Your task to perform on an android device: open app "TextNow: Call + Text Unlimited" (install if not already installed) and enter user name: "stoke@yahoo.com" and password: "prompted" Image 0: 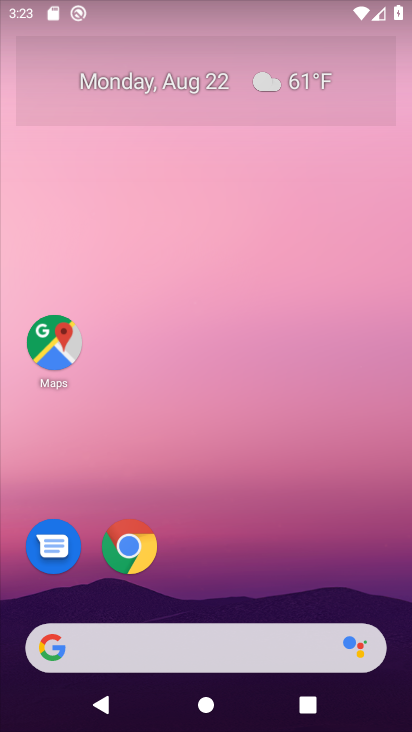
Step 0: drag from (399, 620) to (362, 180)
Your task to perform on an android device: open app "TextNow: Call + Text Unlimited" (install if not already installed) and enter user name: "stoke@yahoo.com" and password: "prompted" Image 1: 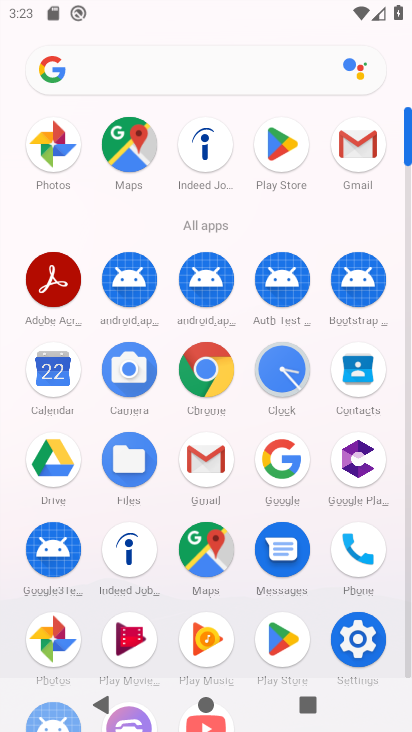
Step 1: click (285, 638)
Your task to perform on an android device: open app "TextNow: Call + Text Unlimited" (install if not already installed) and enter user name: "stoke@yahoo.com" and password: "prompted" Image 2: 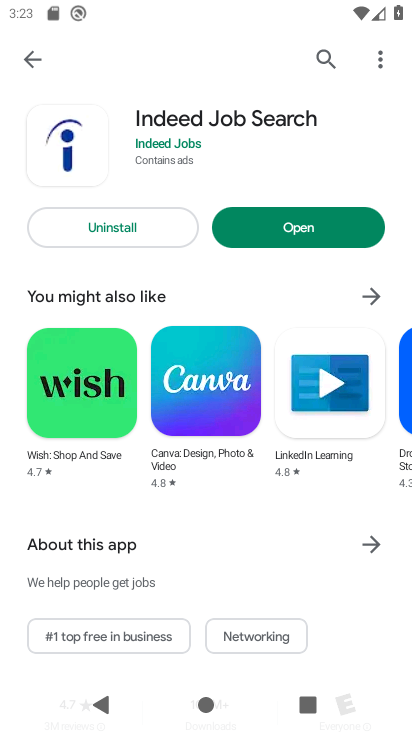
Step 2: click (321, 54)
Your task to perform on an android device: open app "TextNow: Call + Text Unlimited" (install if not already installed) and enter user name: "stoke@yahoo.com" and password: "prompted" Image 3: 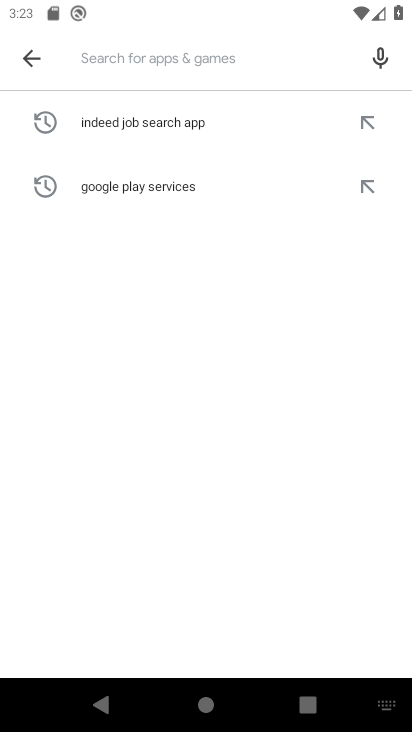
Step 3: type "TextNow: Call + Text Unlimited"
Your task to perform on an android device: open app "TextNow: Call + Text Unlimited" (install if not already installed) and enter user name: "stoke@yahoo.com" and password: "prompted" Image 4: 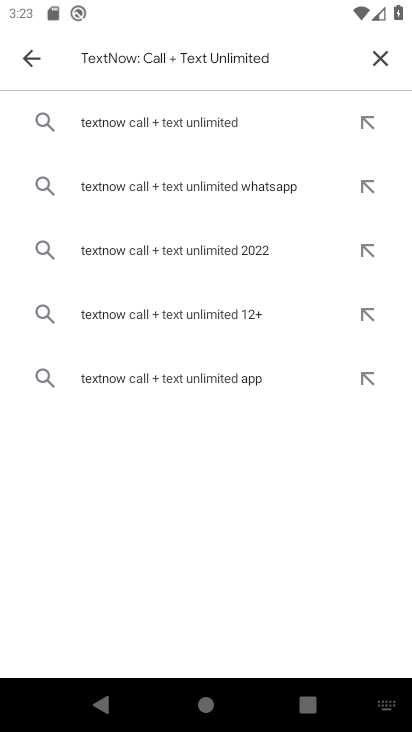
Step 4: click (119, 121)
Your task to perform on an android device: open app "TextNow: Call + Text Unlimited" (install if not already installed) and enter user name: "stoke@yahoo.com" and password: "prompted" Image 5: 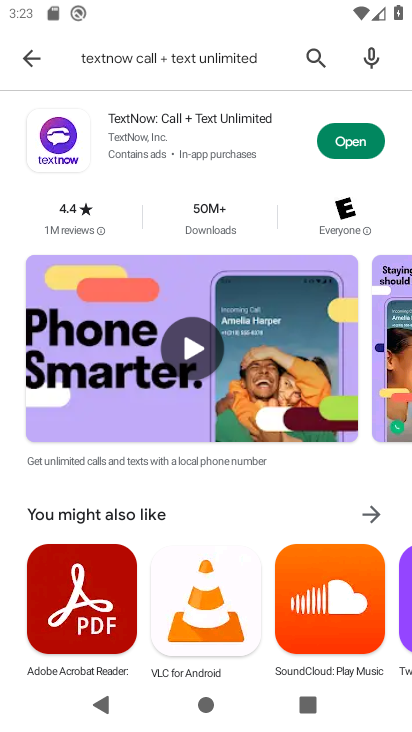
Step 5: click (119, 117)
Your task to perform on an android device: open app "TextNow: Call + Text Unlimited" (install if not already installed) and enter user name: "stoke@yahoo.com" and password: "prompted" Image 6: 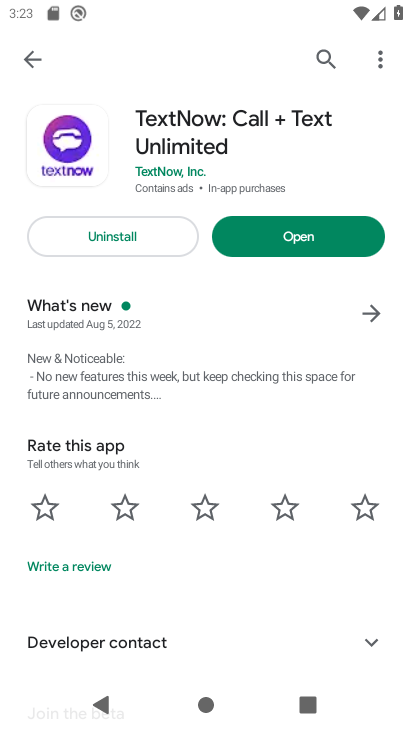
Step 6: click (293, 241)
Your task to perform on an android device: open app "TextNow: Call + Text Unlimited" (install if not already installed) and enter user name: "stoke@yahoo.com" and password: "prompted" Image 7: 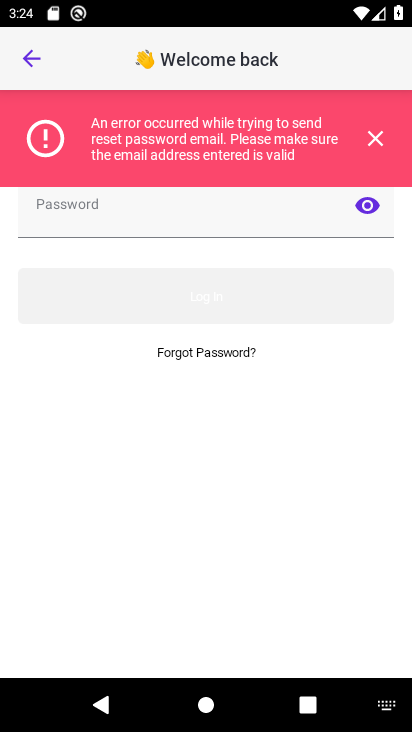
Step 7: click (374, 137)
Your task to perform on an android device: open app "TextNow: Call + Text Unlimited" (install if not already installed) and enter user name: "stoke@yahoo.com" and password: "prompted" Image 8: 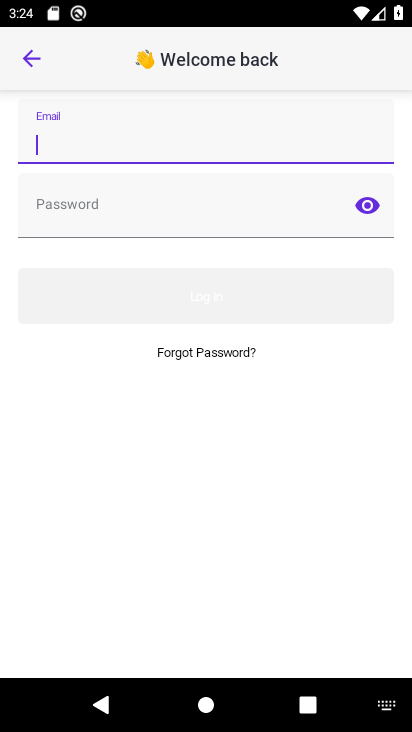
Step 8: type "stoke@yahoo.com"
Your task to perform on an android device: open app "TextNow: Call + Text Unlimited" (install if not already installed) and enter user name: "stoke@yahoo.com" and password: "prompted" Image 9: 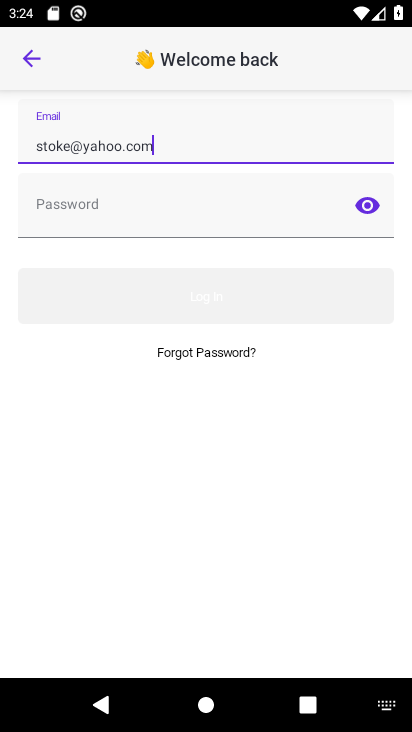
Step 9: click (73, 214)
Your task to perform on an android device: open app "TextNow: Call + Text Unlimited" (install if not already installed) and enter user name: "stoke@yahoo.com" and password: "prompted" Image 10: 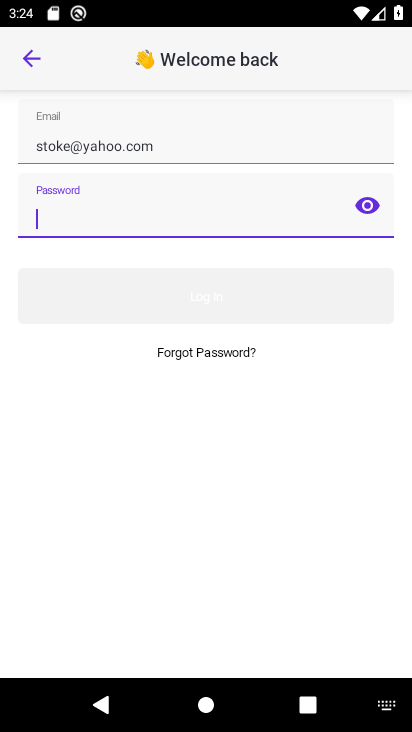
Step 10: type "prompted"
Your task to perform on an android device: open app "TextNow: Call + Text Unlimited" (install if not already installed) and enter user name: "stoke@yahoo.com" and password: "prompted" Image 11: 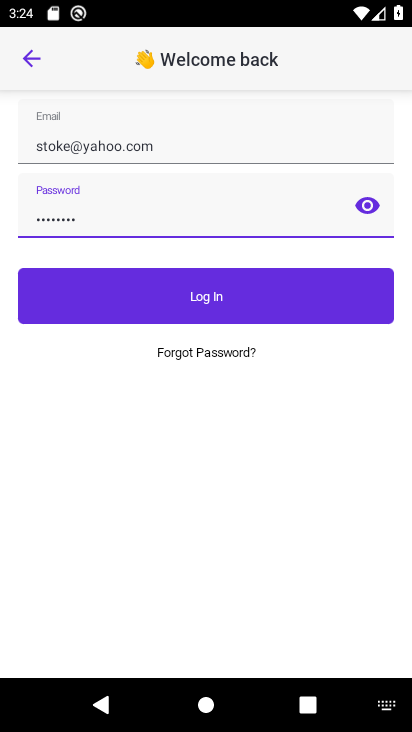
Step 11: task complete